Your task to perform on an android device: Do I have any events this weekend? Image 0: 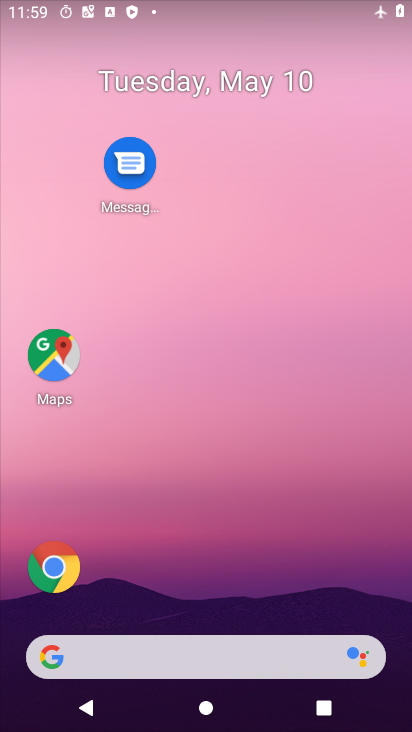
Step 0: drag from (235, 555) to (263, 68)
Your task to perform on an android device: Do I have any events this weekend? Image 1: 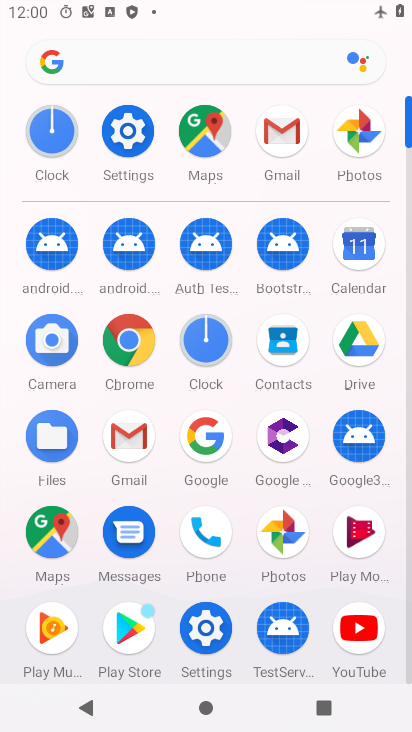
Step 1: click (341, 251)
Your task to perform on an android device: Do I have any events this weekend? Image 2: 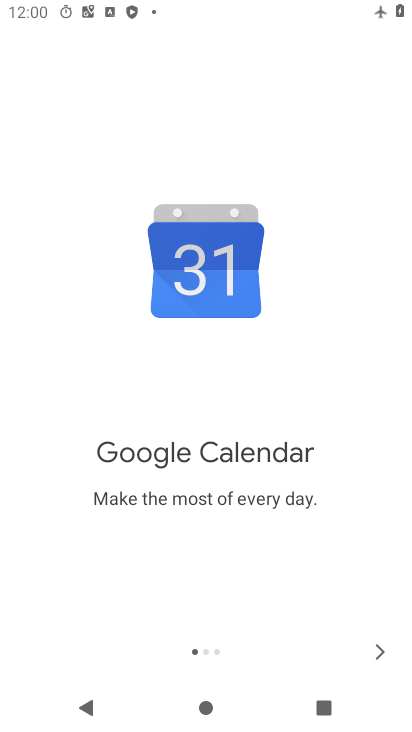
Step 2: click (373, 656)
Your task to perform on an android device: Do I have any events this weekend? Image 3: 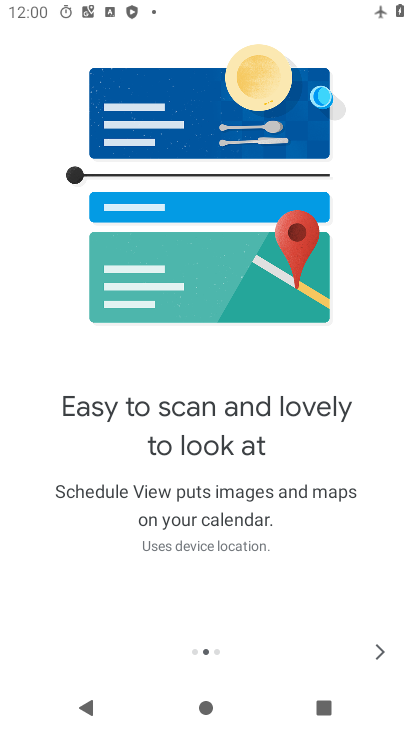
Step 3: click (373, 655)
Your task to perform on an android device: Do I have any events this weekend? Image 4: 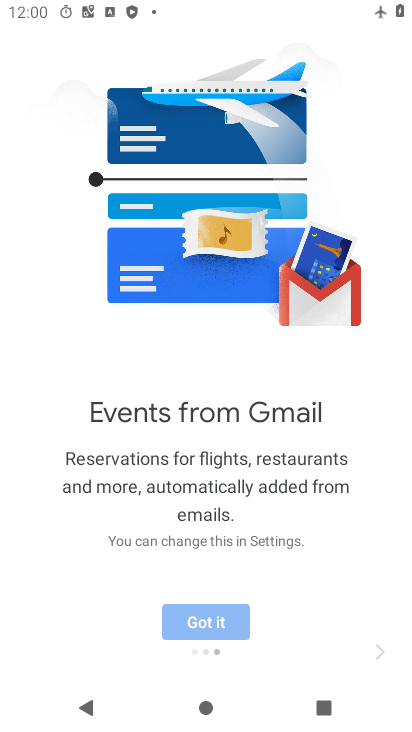
Step 4: click (373, 655)
Your task to perform on an android device: Do I have any events this weekend? Image 5: 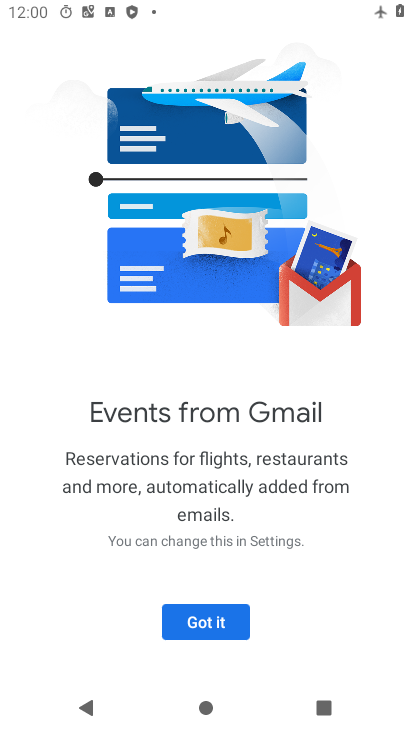
Step 5: click (226, 626)
Your task to perform on an android device: Do I have any events this weekend? Image 6: 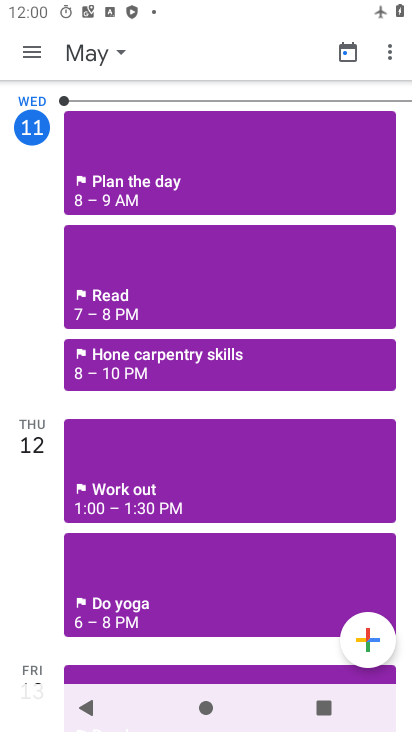
Step 6: click (18, 63)
Your task to perform on an android device: Do I have any events this weekend? Image 7: 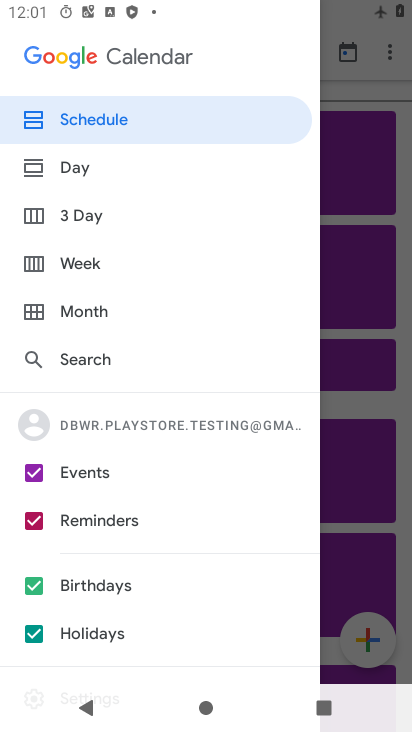
Step 7: click (121, 283)
Your task to perform on an android device: Do I have any events this weekend? Image 8: 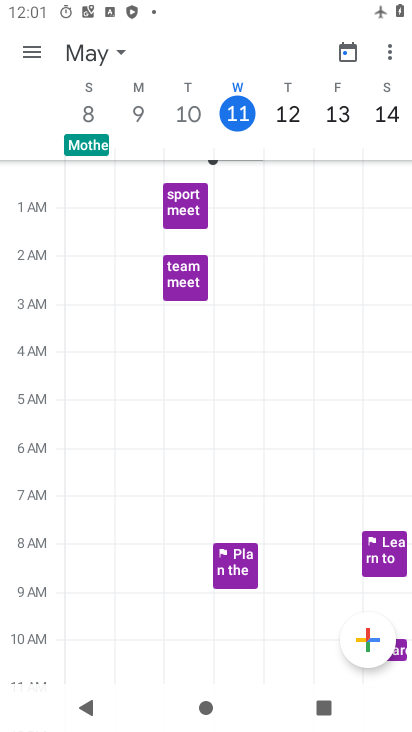
Step 8: task complete